Your task to perform on an android device: When is my next meeting? Image 0: 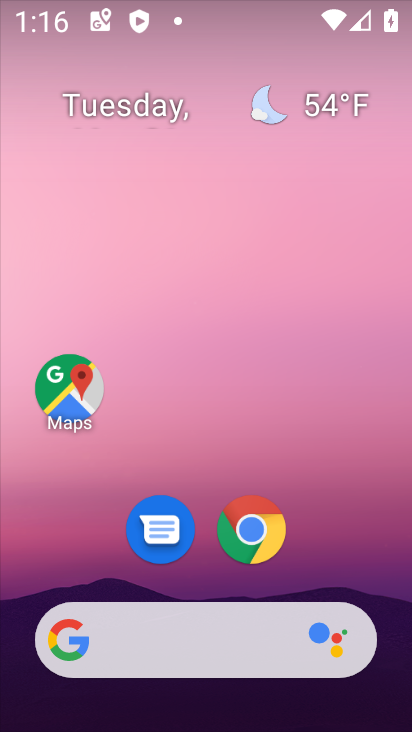
Step 0: drag from (333, 570) to (295, 75)
Your task to perform on an android device: When is my next meeting? Image 1: 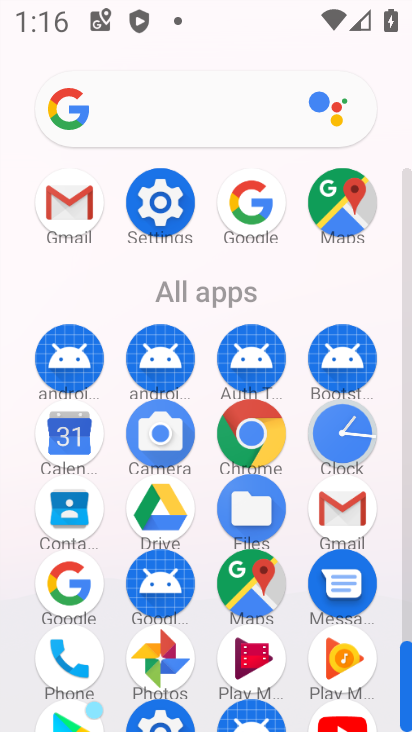
Step 1: click (72, 438)
Your task to perform on an android device: When is my next meeting? Image 2: 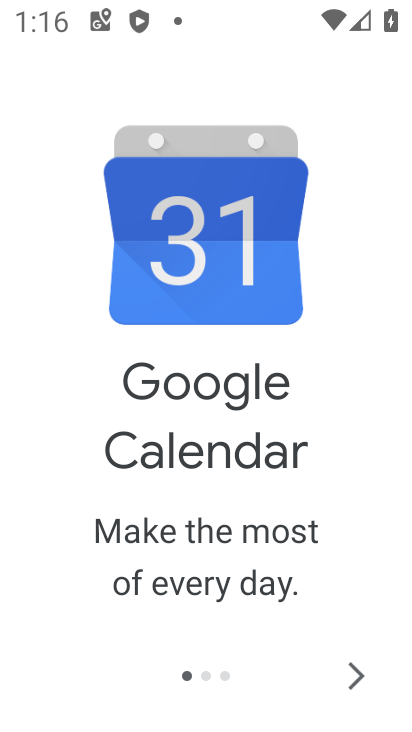
Step 2: click (357, 674)
Your task to perform on an android device: When is my next meeting? Image 3: 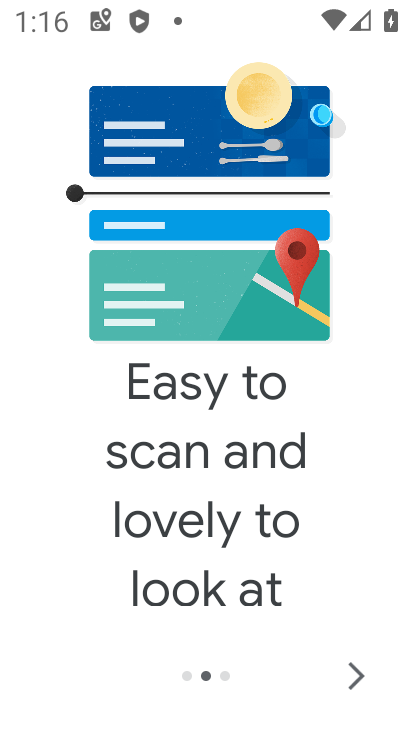
Step 3: click (357, 674)
Your task to perform on an android device: When is my next meeting? Image 4: 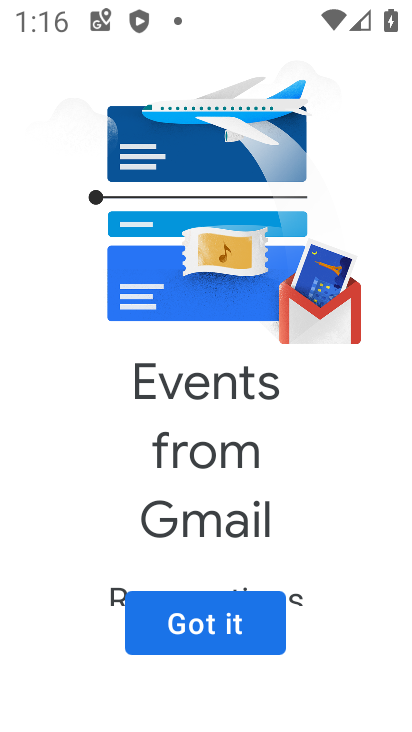
Step 4: click (203, 625)
Your task to perform on an android device: When is my next meeting? Image 5: 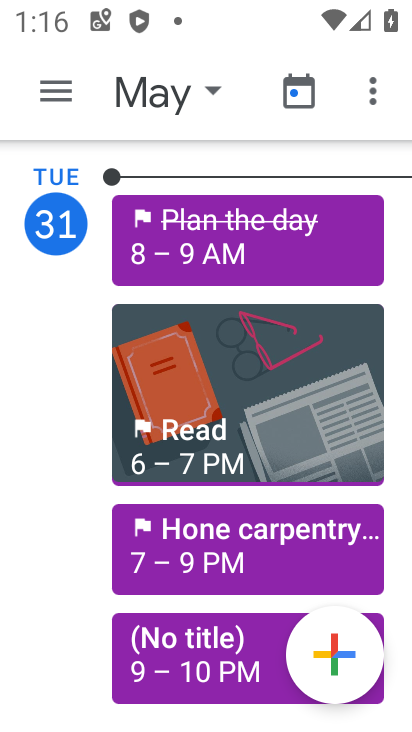
Step 5: click (214, 88)
Your task to perform on an android device: When is my next meeting? Image 6: 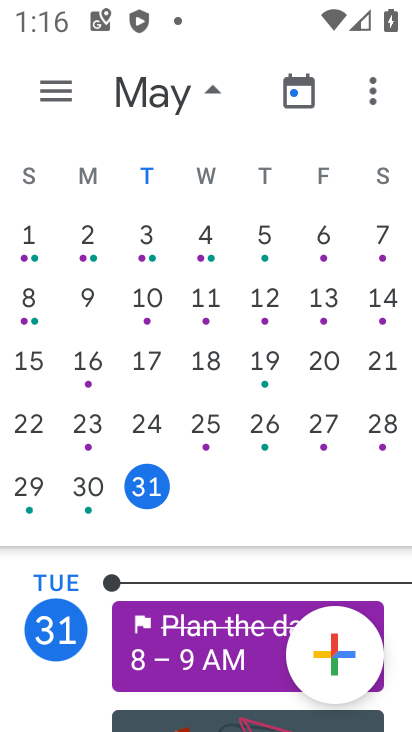
Step 6: drag from (358, 367) to (0, 312)
Your task to perform on an android device: When is my next meeting? Image 7: 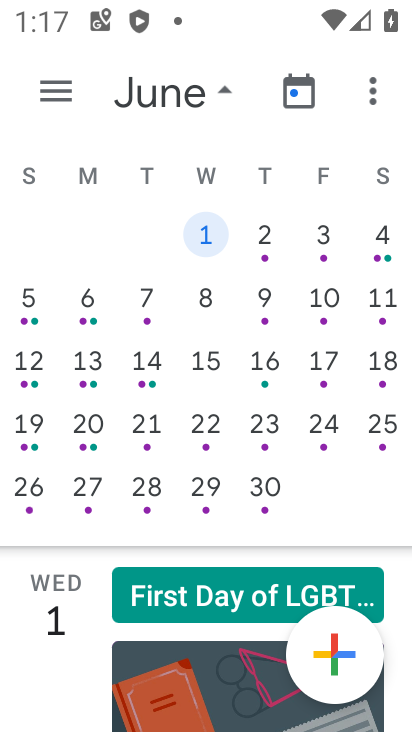
Step 7: click (57, 90)
Your task to perform on an android device: When is my next meeting? Image 8: 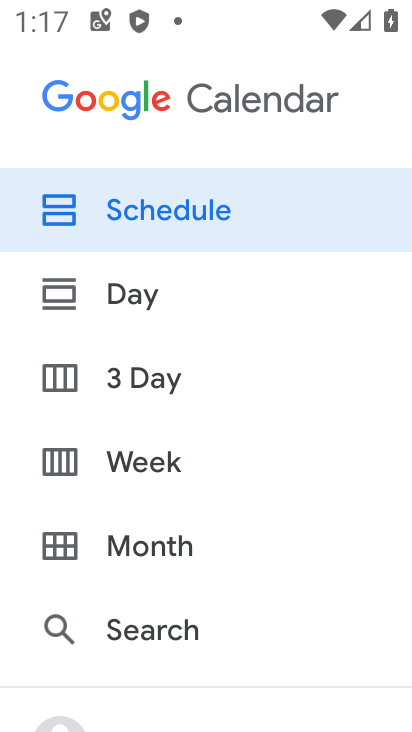
Step 8: click (106, 210)
Your task to perform on an android device: When is my next meeting? Image 9: 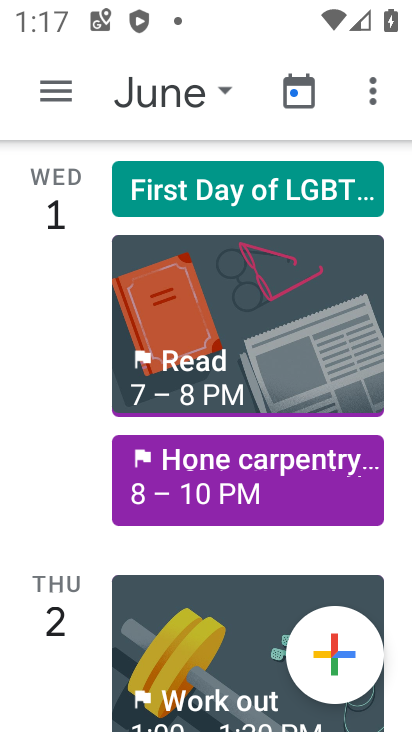
Step 9: task complete